Your task to perform on an android device: Go to notification settings Image 0: 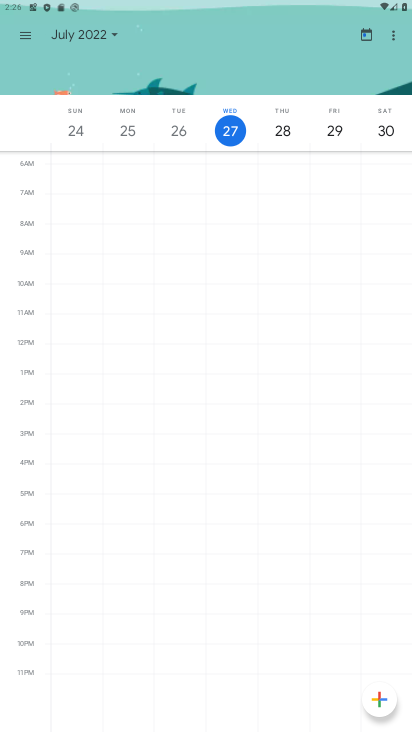
Step 0: press home button
Your task to perform on an android device: Go to notification settings Image 1: 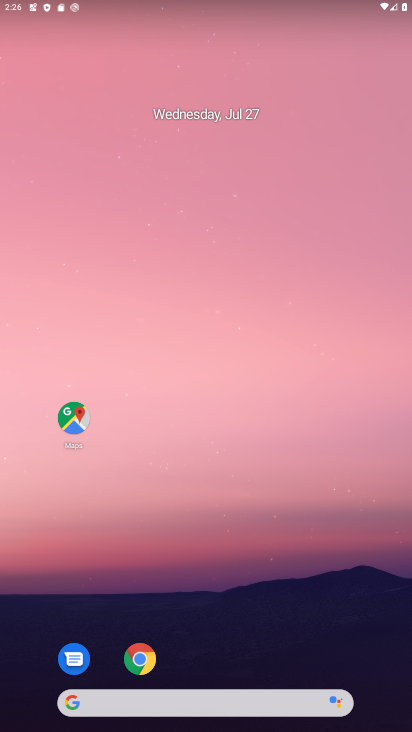
Step 1: drag from (202, 715) to (202, 168)
Your task to perform on an android device: Go to notification settings Image 2: 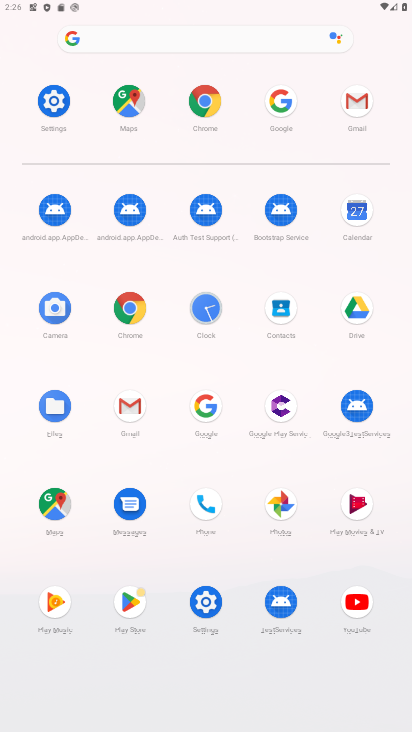
Step 2: click (53, 102)
Your task to perform on an android device: Go to notification settings Image 3: 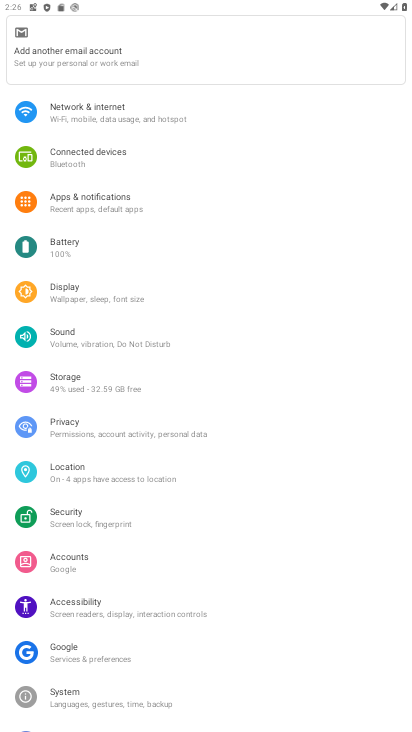
Step 3: click (84, 207)
Your task to perform on an android device: Go to notification settings Image 4: 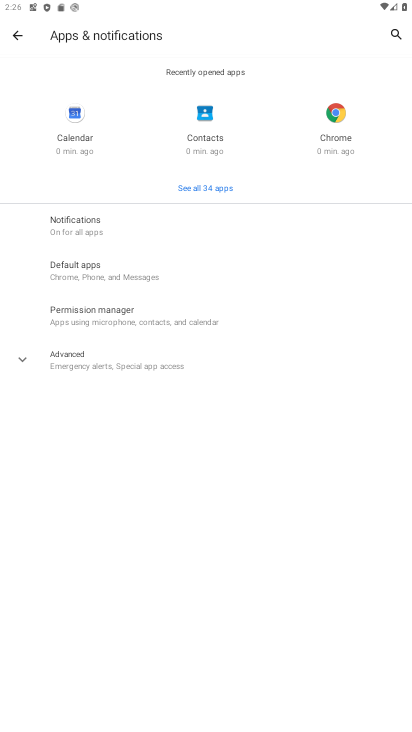
Step 4: click (74, 227)
Your task to perform on an android device: Go to notification settings Image 5: 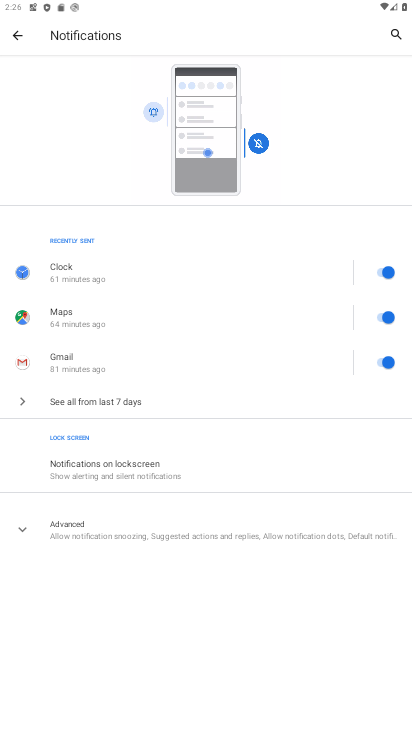
Step 5: task complete